Your task to perform on an android device: Open the Play Movies app and select the watchlist tab. Image 0: 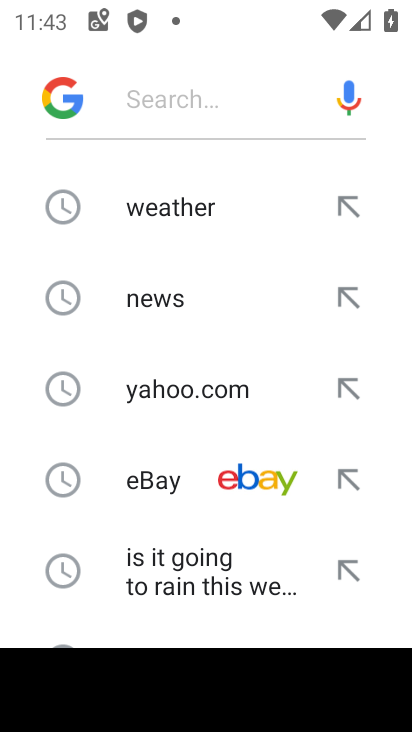
Step 0: press home button
Your task to perform on an android device: Open the Play Movies app and select the watchlist tab. Image 1: 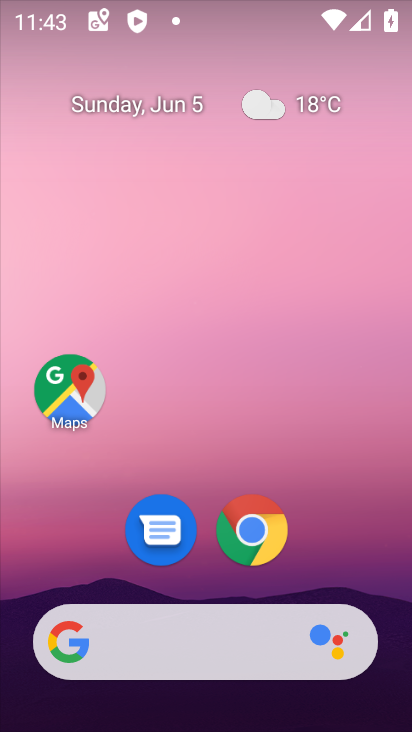
Step 1: drag from (372, 8) to (29, 35)
Your task to perform on an android device: Open the Play Movies app and select the watchlist tab. Image 2: 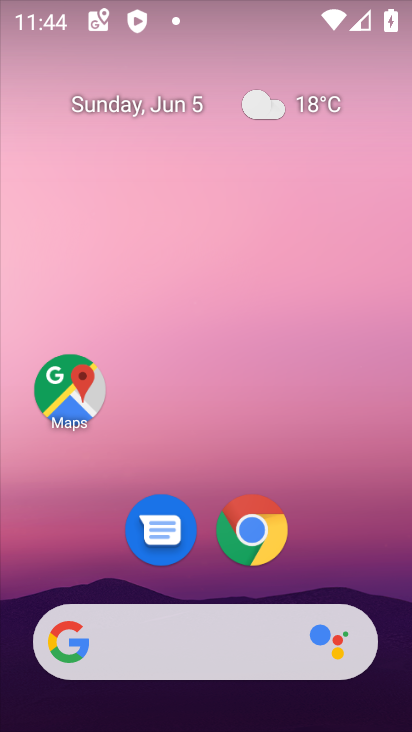
Step 2: drag from (378, 568) to (310, 35)
Your task to perform on an android device: Open the Play Movies app and select the watchlist tab. Image 3: 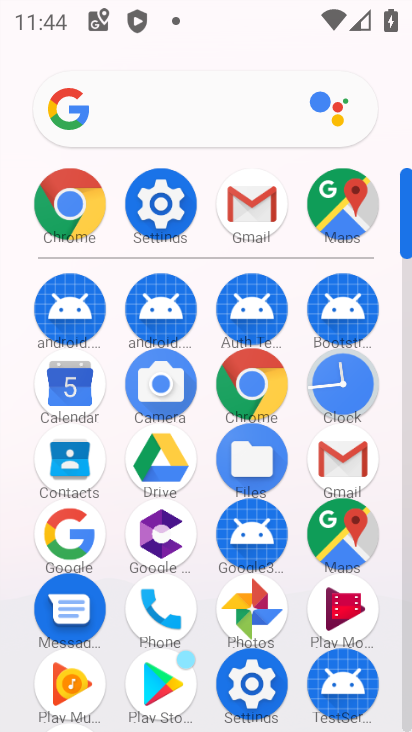
Step 3: drag from (406, 540) to (400, 246)
Your task to perform on an android device: Open the Play Movies app and select the watchlist tab. Image 4: 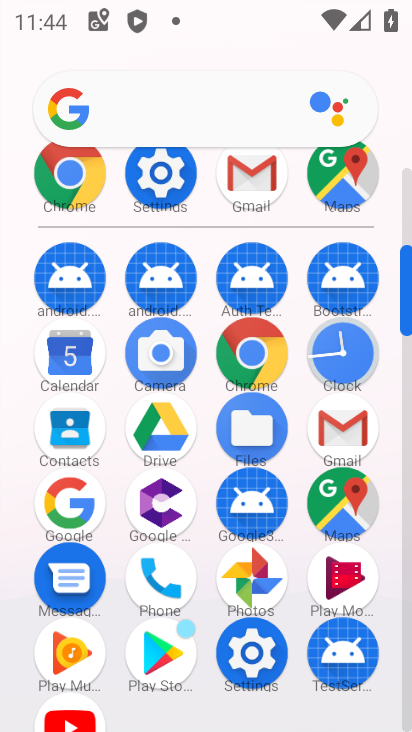
Step 4: click (346, 547)
Your task to perform on an android device: Open the Play Movies app and select the watchlist tab. Image 5: 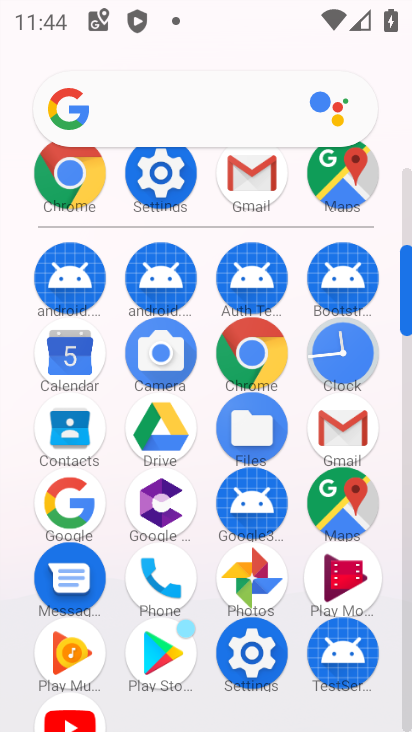
Step 5: click (350, 572)
Your task to perform on an android device: Open the Play Movies app and select the watchlist tab. Image 6: 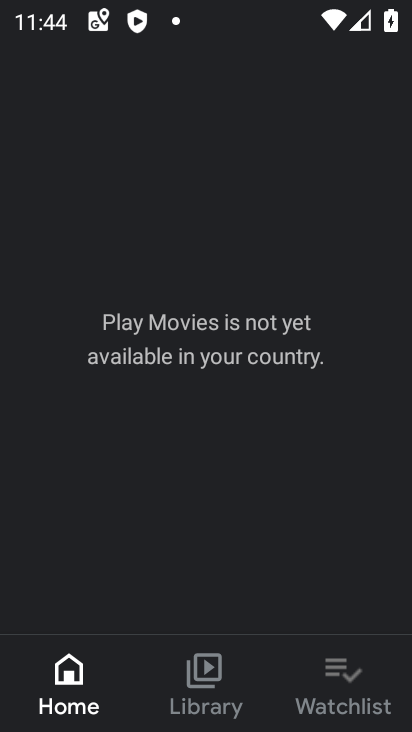
Step 6: click (361, 680)
Your task to perform on an android device: Open the Play Movies app and select the watchlist tab. Image 7: 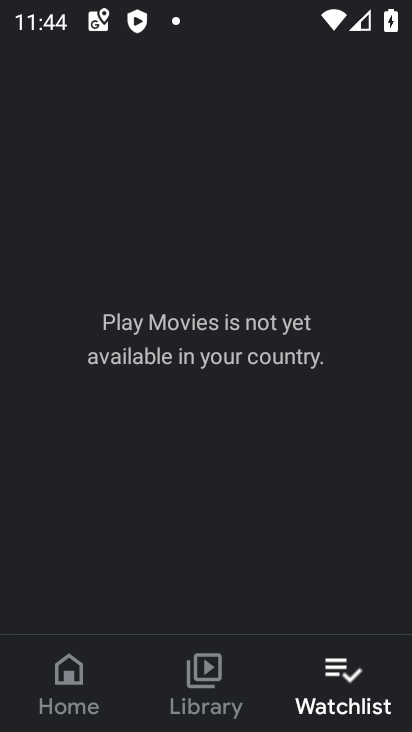
Step 7: task complete